Your task to perform on an android device: Open battery settings Image 0: 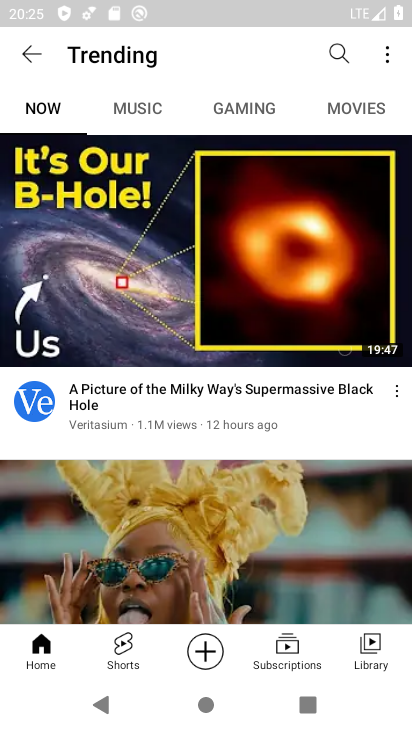
Step 0: press back button
Your task to perform on an android device: Open battery settings Image 1: 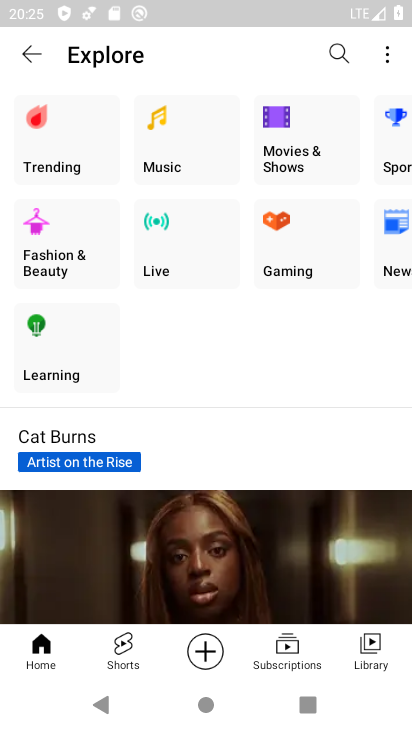
Step 1: press home button
Your task to perform on an android device: Open battery settings Image 2: 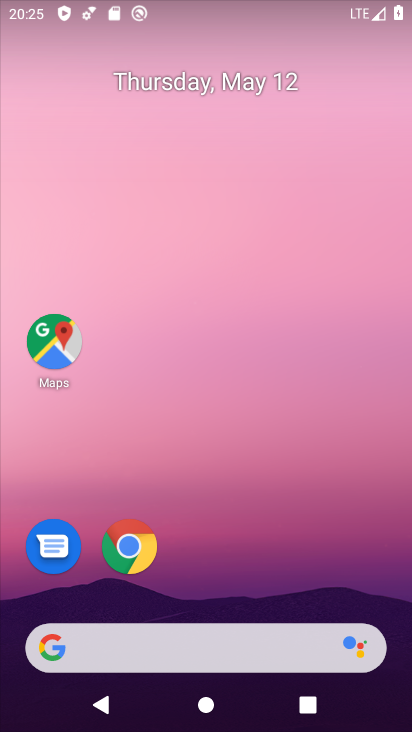
Step 2: drag from (242, 564) to (318, 9)
Your task to perform on an android device: Open battery settings Image 3: 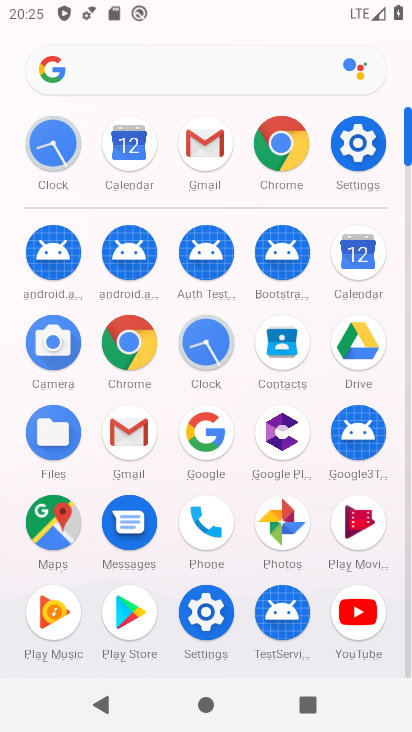
Step 3: click (360, 145)
Your task to perform on an android device: Open battery settings Image 4: 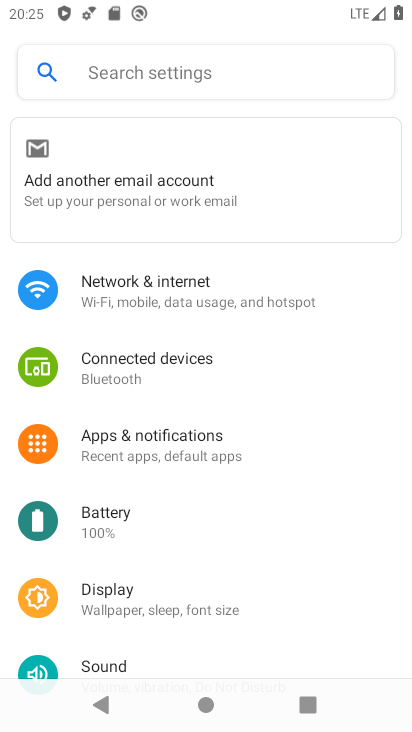
Step 4: click (177, 519)
Your task to perform on an android device: Open battery settings Image 5: 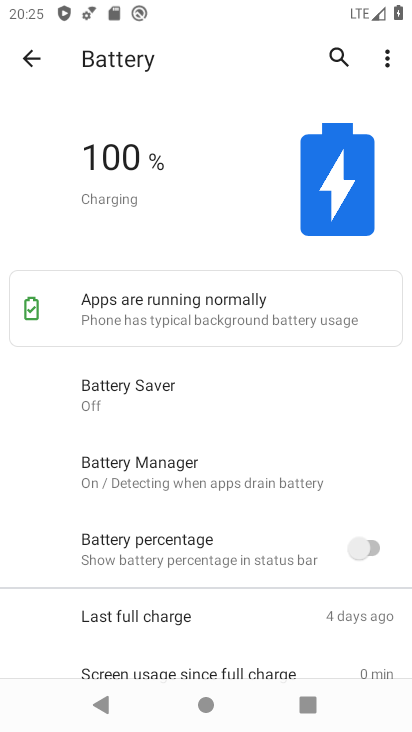
Step 5: task complete